Your task to perform on an android device: make emails show in primary in the gmail app Image 0: 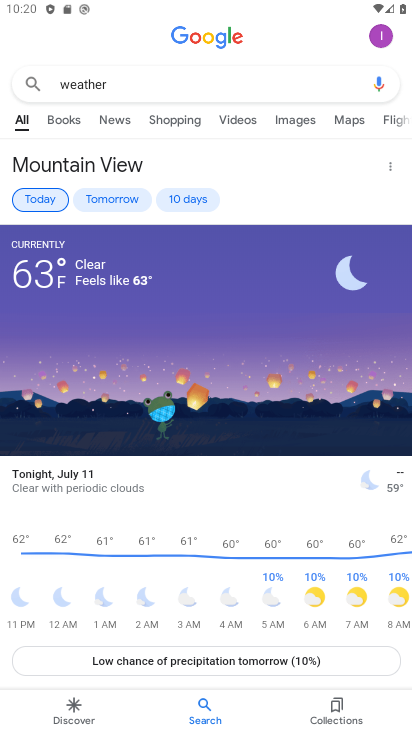
Step 0: press back button
Your task to perform on an android device: make emails show in primary in the gmail app Image 1: 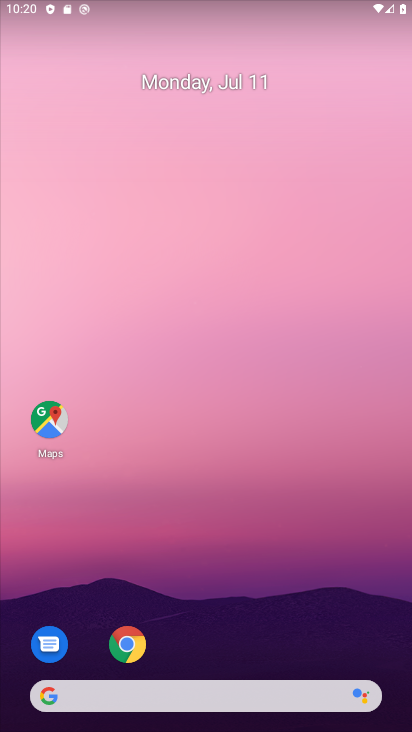
Step 1: drag from (246, 651) to (168, 149)
Your task to perform on an android device: make emails show in primary in the gmail app Image 2: 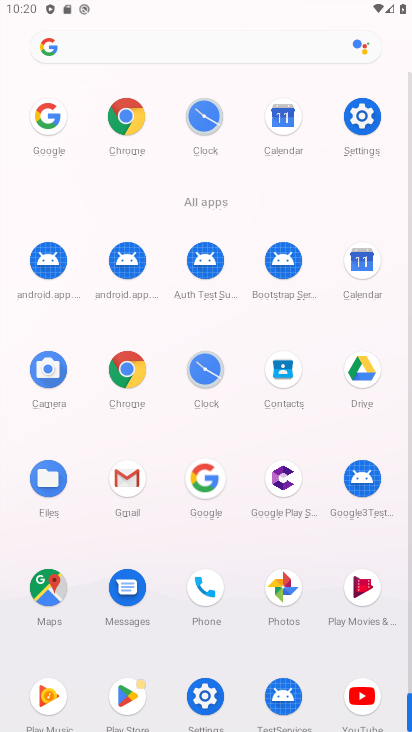
Step 2: click (129, 476)
Your task to perform on an android device: make emails show in primary in the gmail app Image 3: 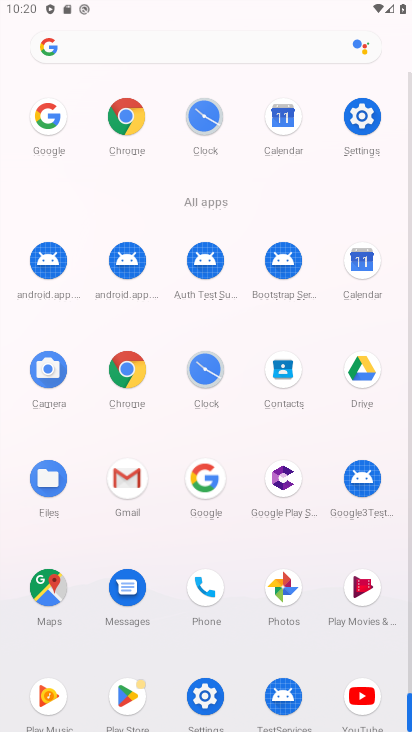
Step 3: click (127, 475)
Your task to perform on an android device: make emails show in primary in the gmail app Image 4: 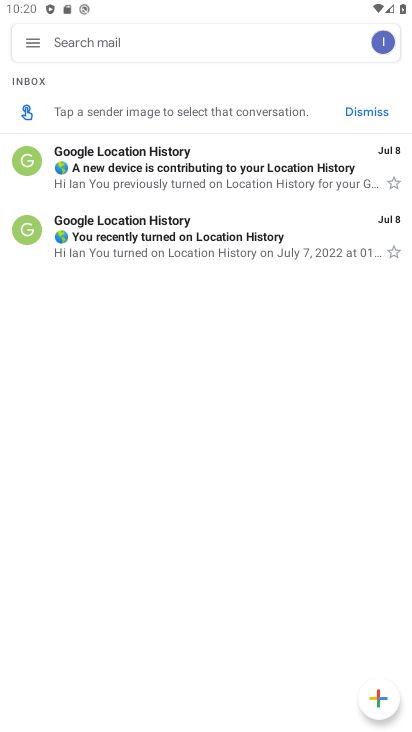
Step 4: click (27, 45)
Your task to perform on an android device: make emails show in primary in the gmail app Image 5: 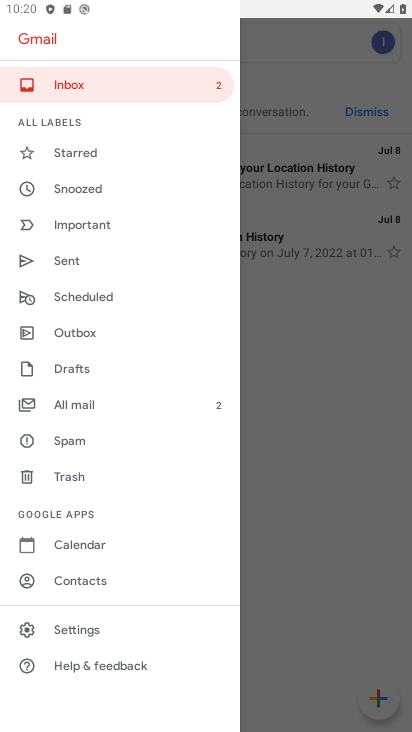
Step 5: click (75, 629)
Your task to perform on an android device: make emails show in primary in the gmail app Image 6: 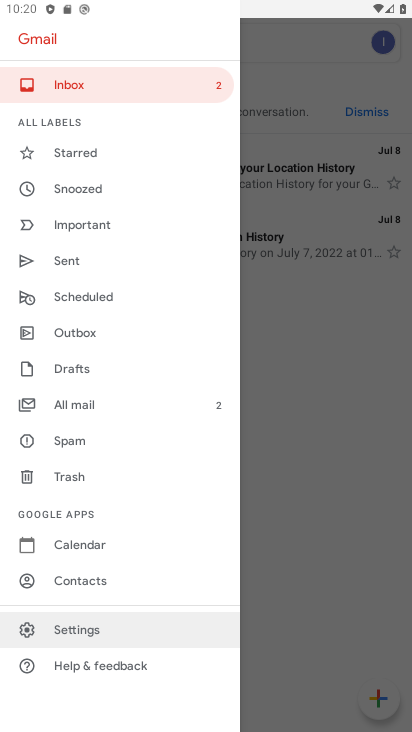
Step 6: click (75, 629)
Your task to perform on an android device: make emails show in primary in the gmail app Image 7: 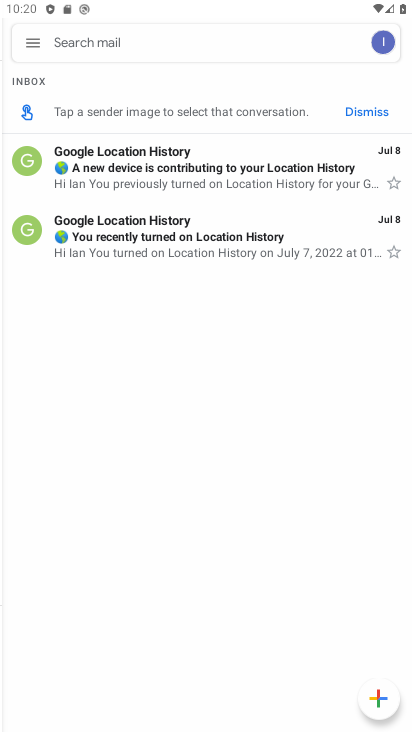
Step 7: click (76, 629)
Your task to perform on an android device: make emails show in primary in the gmail app Image 8: 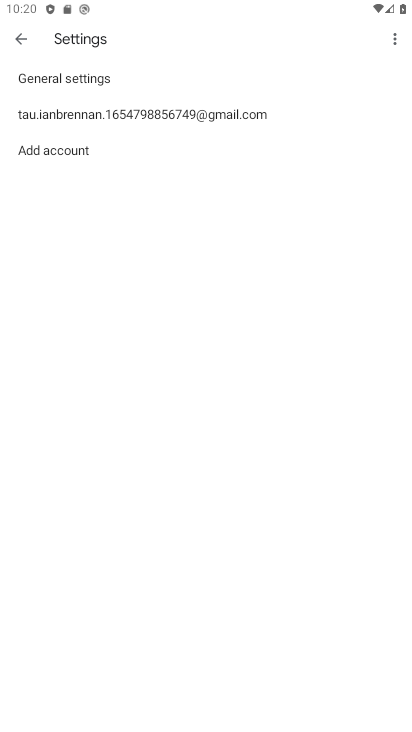
Step 8: click (107, 116)
Your task to perform on an android device: make emails show in primary in the gmail app Image 9: 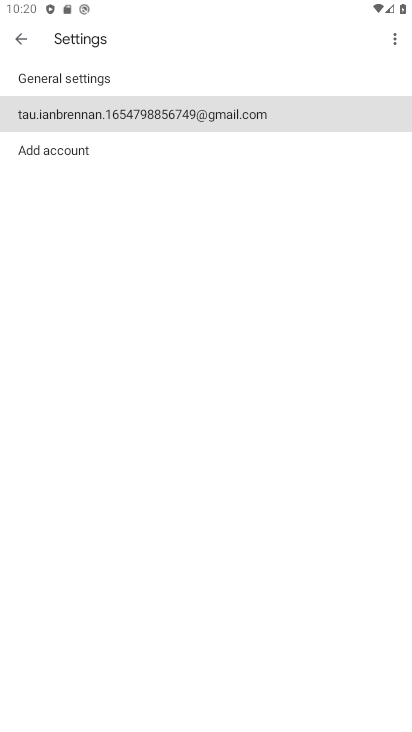
Step 9: click (107, 116)
Your task to perform on an android device: make emails show in primary in the gmail app Image 10: 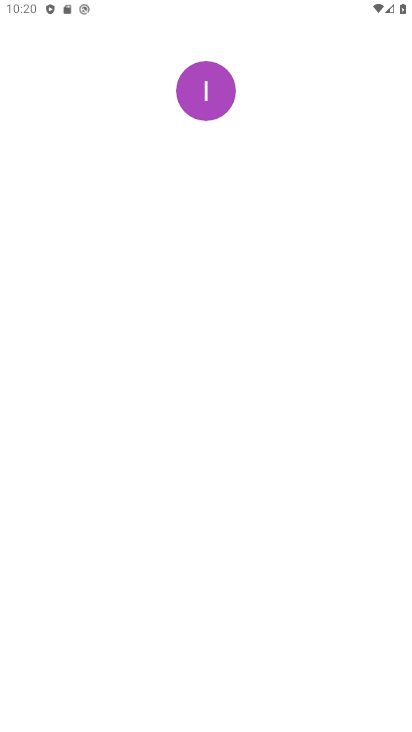
Step 10: press back button
Your task to perform on an android device: make emails show in primary in the gmail app Image 11: 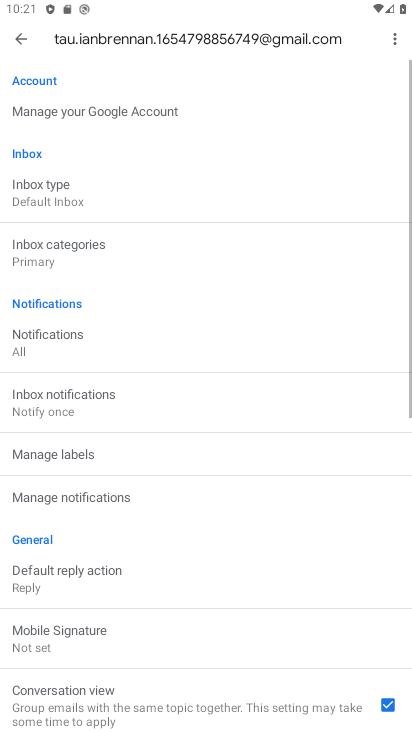
Step 11: press back button
Your task to perform on an android device: make emails show in primary in the gmail app Image 12: 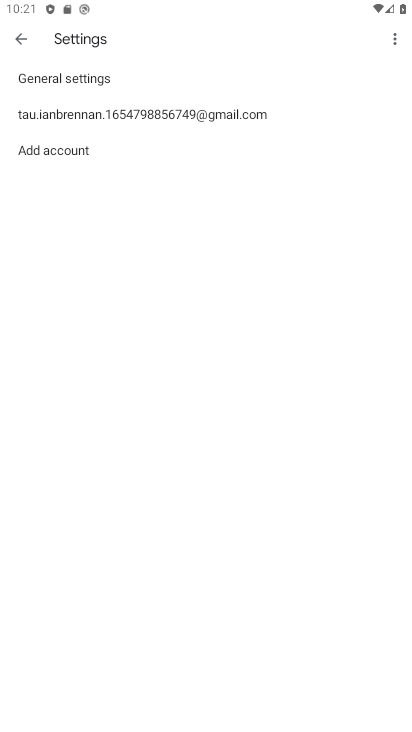
Step 12: click (88, 116)
Your task to perform on an android device: make emails show in primary in the gmail app Image 13: 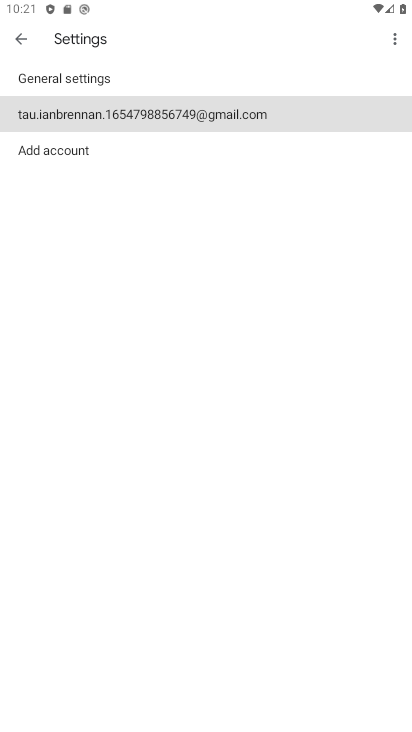
Step 13: click (92, 118)
Your task to perform on an android device: make emails show in primary in the gmail app Image 14: 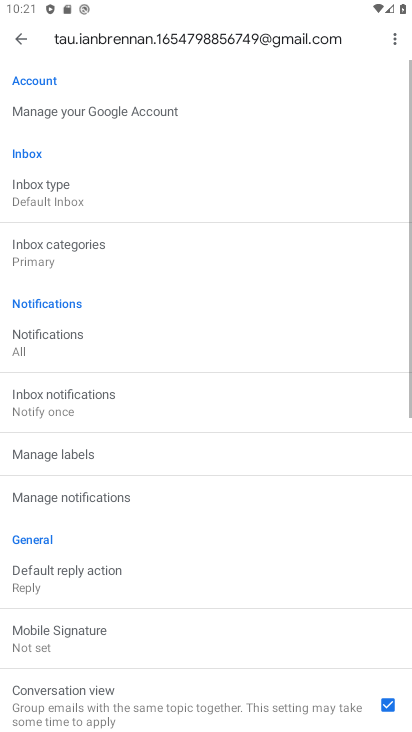
Step 14: click (93, 120)
Your task to perform on an android device: make emails show in primary in the gmail app Image 15: 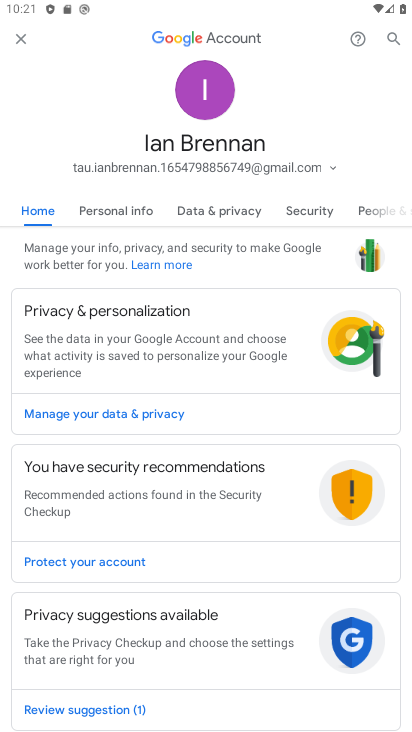
Step 15: click (16, 59)
Your task to perform on an android device: make emails show in primary in the gmail app Image 16: 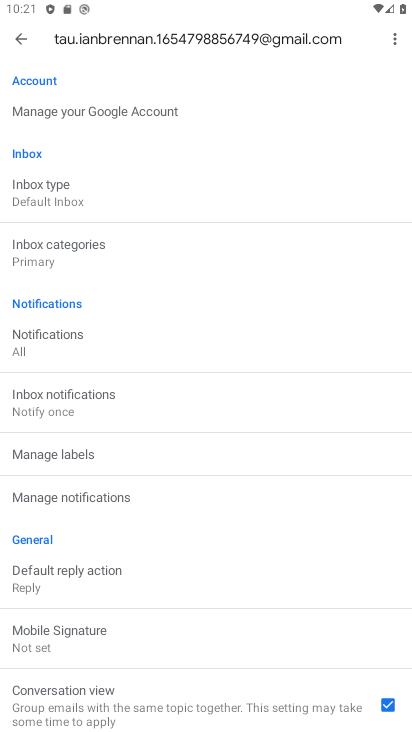
Step 16: click (37, 253)
Your task to perform on an android device: make emails show in primary in the gmail app Image 17: 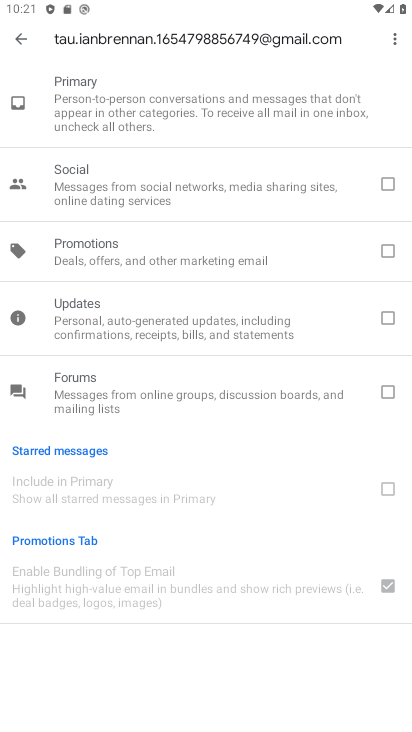
Step 17: click (20, 22)
Your task to perform on an android device: make emails show in primary in the gmail app Image 18: 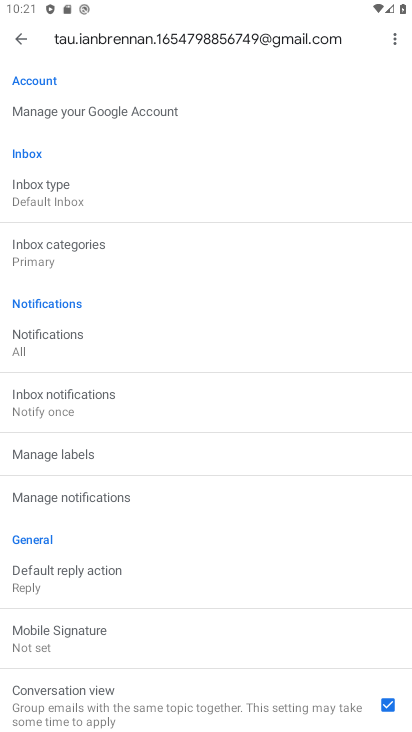
Step 18: click (42, 184)
Your task to perform on an android device: make emails show in primary in the gmail app Image 19: 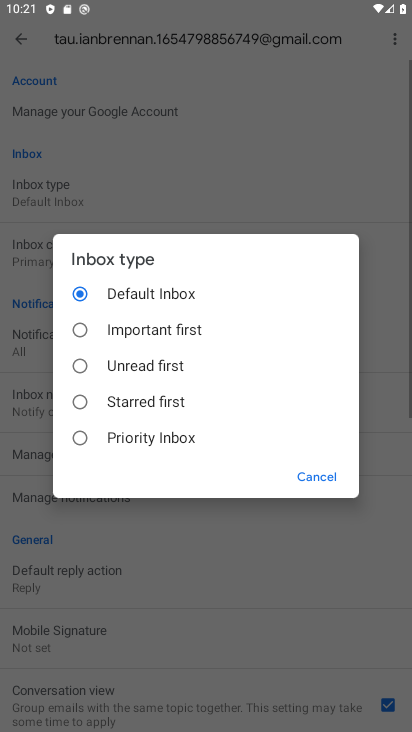
Step 19: click (92, 442)
Your task to perform on an android device: make emails show in primary in the gmail app Image 20: 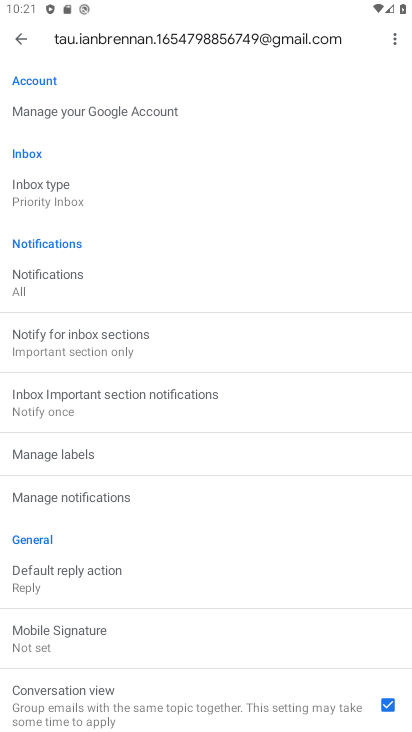
Step 20: task complete